Your task to perform on an android device: When is my next appointment? Image 0: 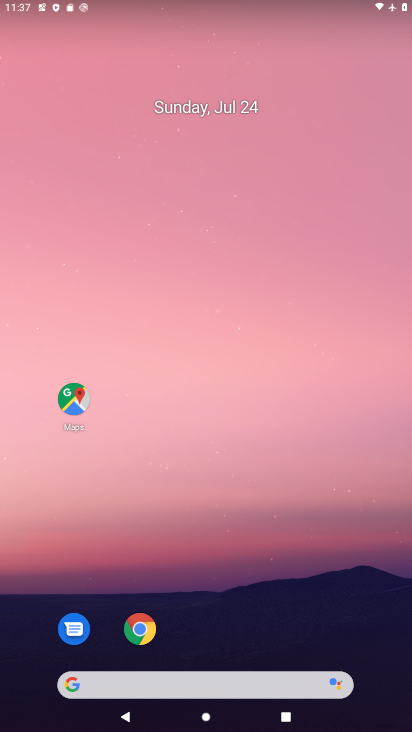
Step 0: drag from (219, 336) to (246, 38)
Your task to perform on an android device: When is my next appointment? Image 1: 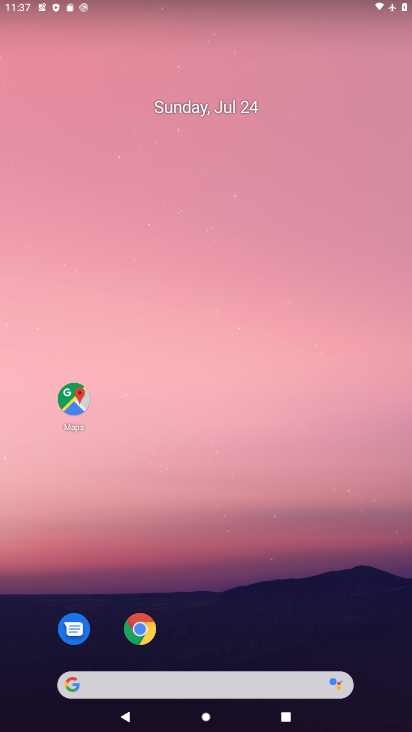
Step 1: drag from (242, 643) to (230, 84)
Your task to perform on an android device: When is my next appointment? Image 2: 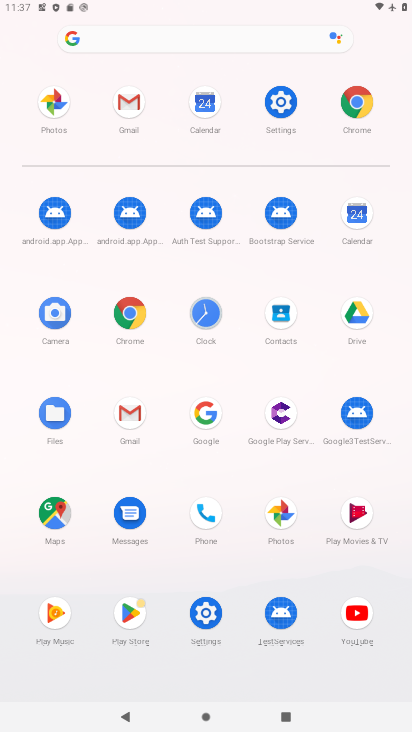
Step 2: click (227, 109)
Your task to perform on an android device: When is my next appointment? Image 3: 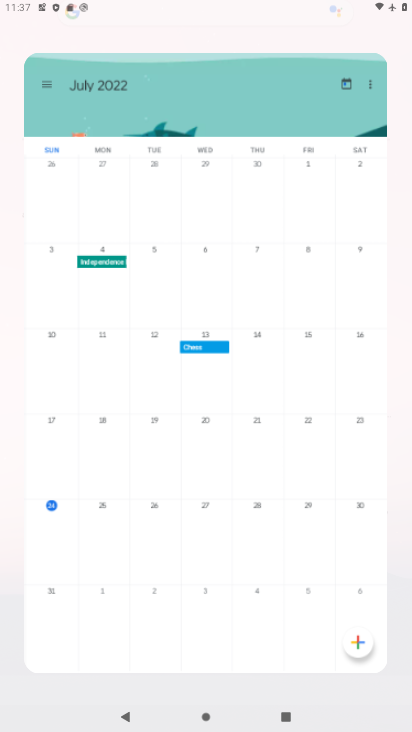
Step 3: task complete